Your task to perform on an android device: Go to Reddit.com Image 0: 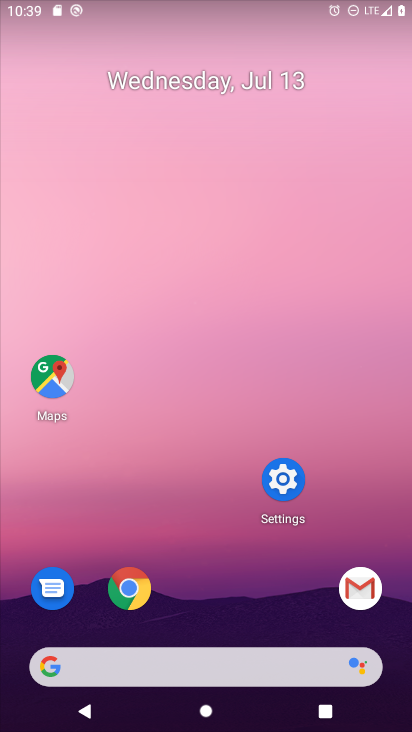
Step 0: click (126, 587)
Your task to perform on an android device: Go to Reddit.com Image 1: 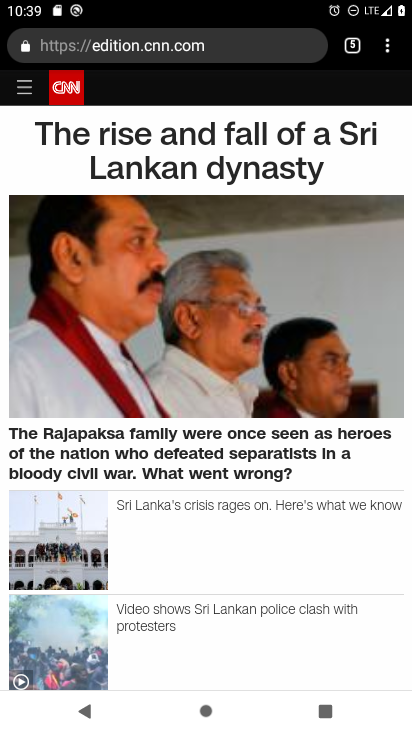
Step 1: click (204, 51)
Your task to perform on an android device: Go to Reddit.com Image 2: 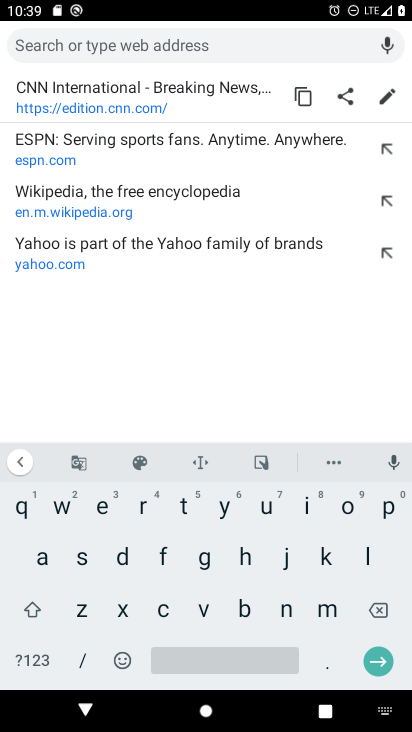
Step 2: click (141, 505)
Your task to perform on an android device: Go to Reddit.com Image 3: 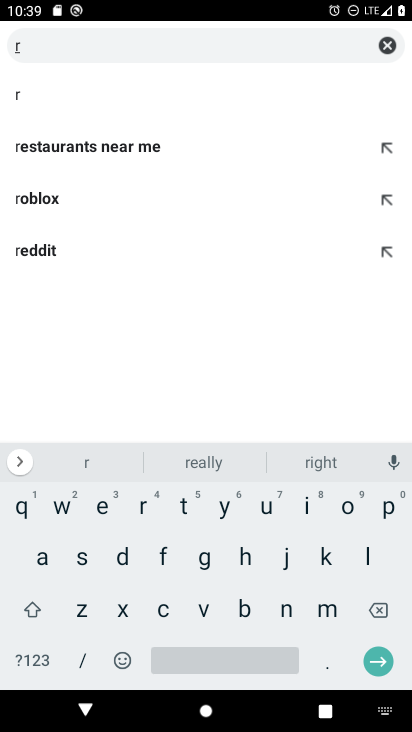
Step 3: click (53, 253)
Your task to perform on an android device: Go to Reddit.com Image 4: 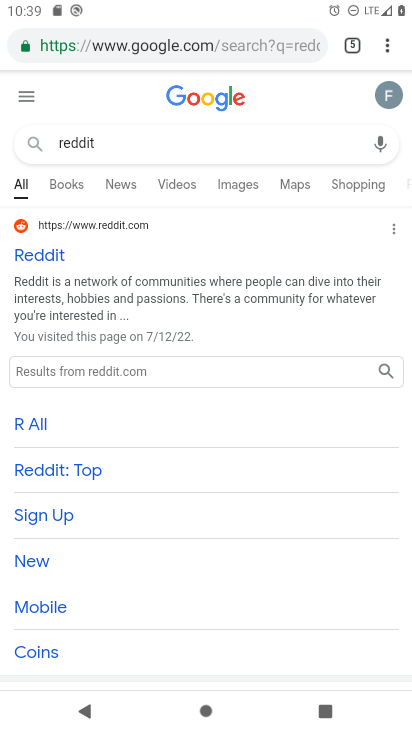
Step 4: click (50, 254)
Your task to perform on an android device: Go to Reddit.com Image 5: 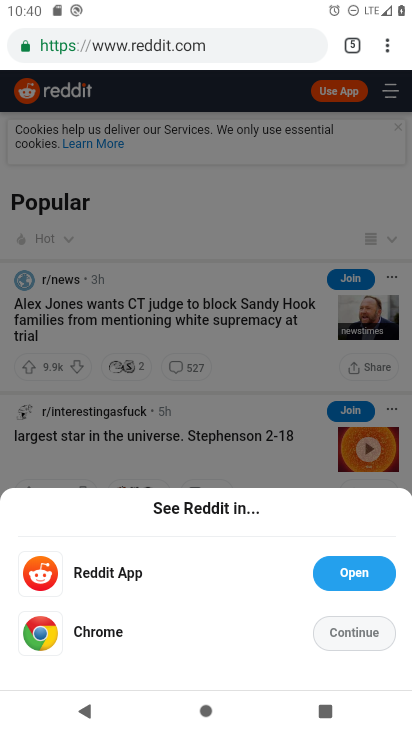
Step 5: click (345, 635)
Your task to perform on an android device: Go to Reddit.com Image 6: 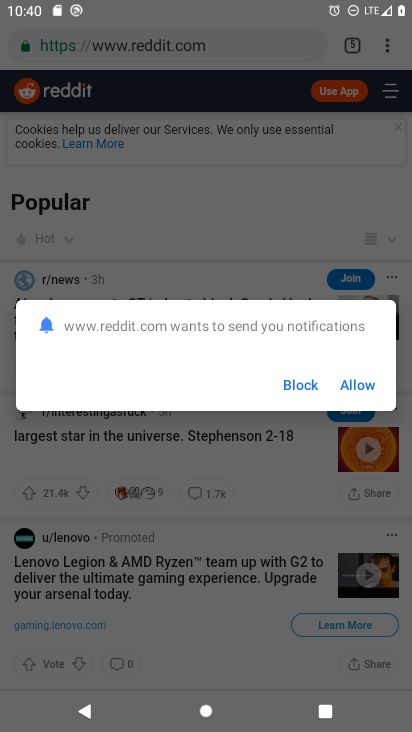
Step 6: click (298, 391)
Your task to perform on an android device: Go to Reddit.com Image 7: 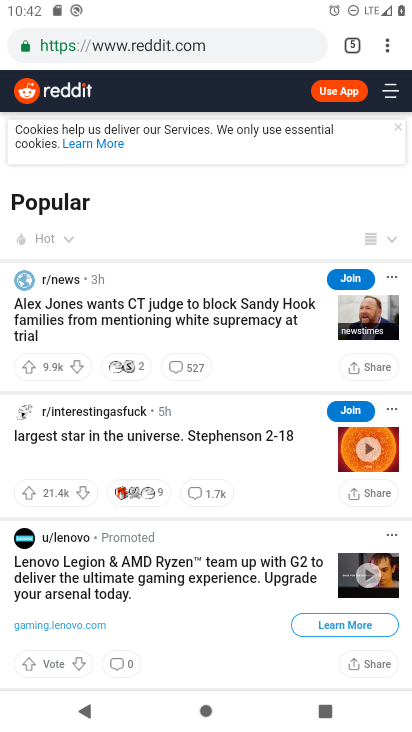
Step 7: task complete